Your task to perform on an android device: Open Reddit.com Image 0: 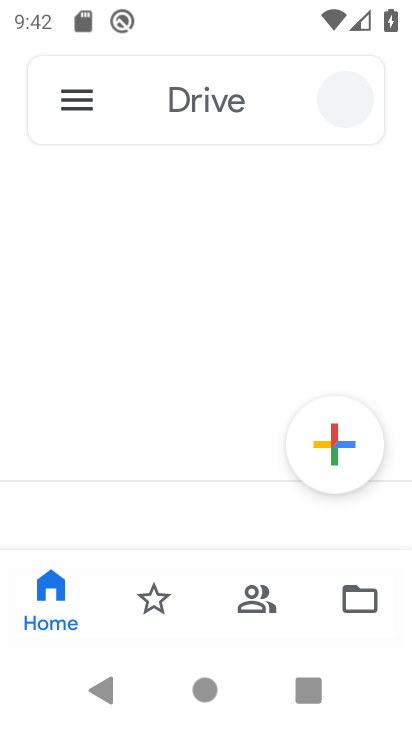
Step 0: drag from (364, 494) to (360, 188)
Your task to perform on an android device: Open Reddit.com Image 1: 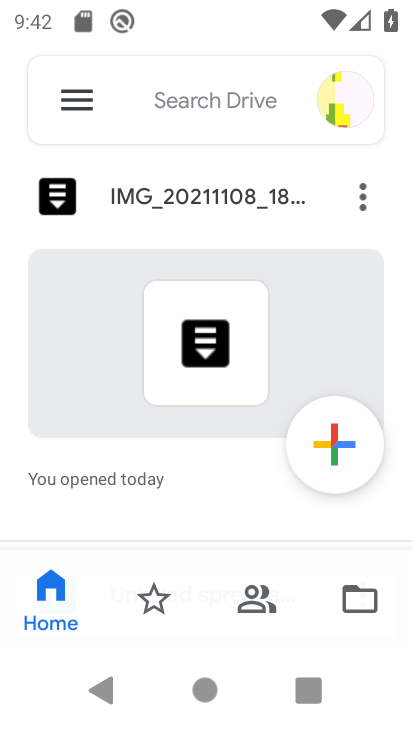
Step 1: press home button
Your task to perform on an android device: Open Reddit.com Image 2: 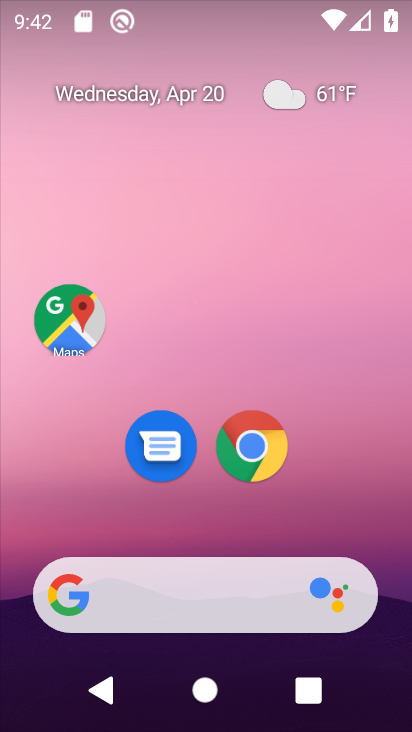
Step 2: click (277, 448)
Your task to perform on an android device: Open Reddit.com Image 3: 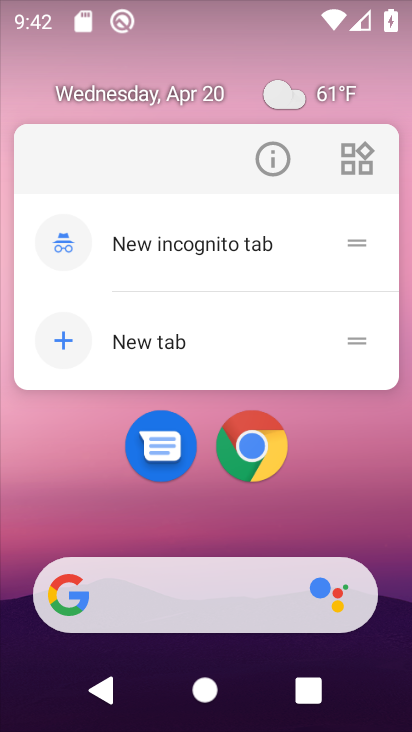
Step 3: click (354, 446)
Your task to perform on an android device: Open Reddit.com Image 4: 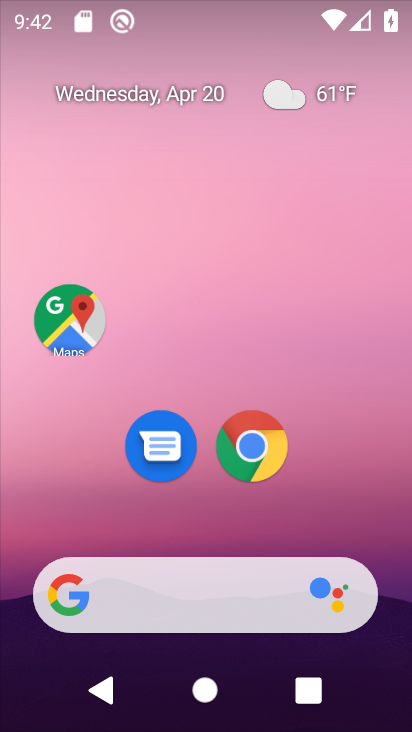
Step 4: click (278, 437)
Your task to perform on an android device: Open Reddit.com Image 5: 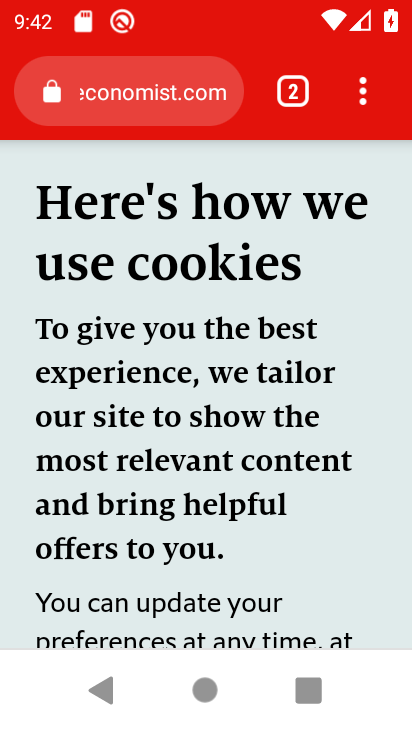
Step 5: click (290, 91)
Your task to perform on an android device: Open Reddit.com Image 6: 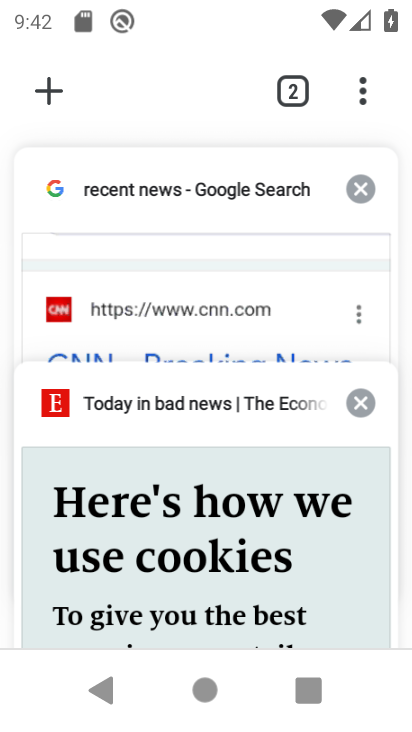
Step 6: click (50, 84)
Your task to perform on an android device: Open Reddit.com Image 7: 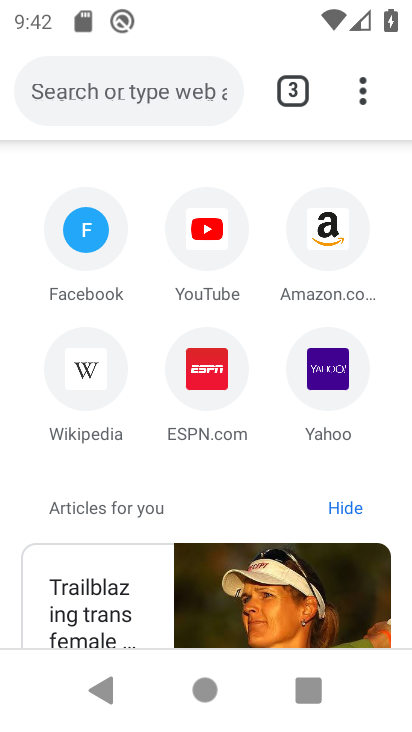
Step 7: click (101, 93)
Your task to perform on an android device: Open Reddit.com Image 8: 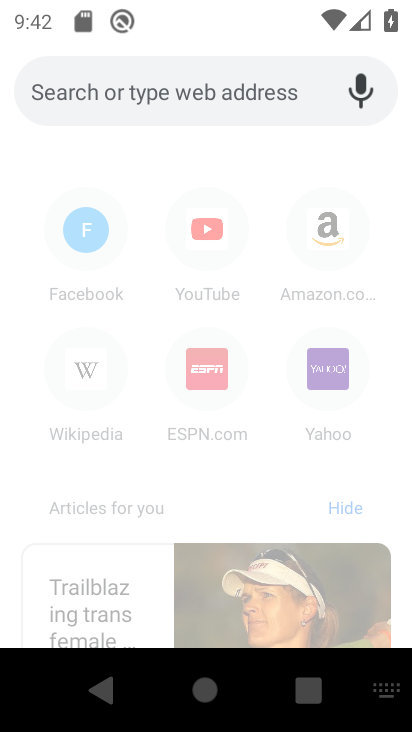
Step 8: type "reddit.com"
Your task to perform on an android device: Open Reddit.com Image 9: 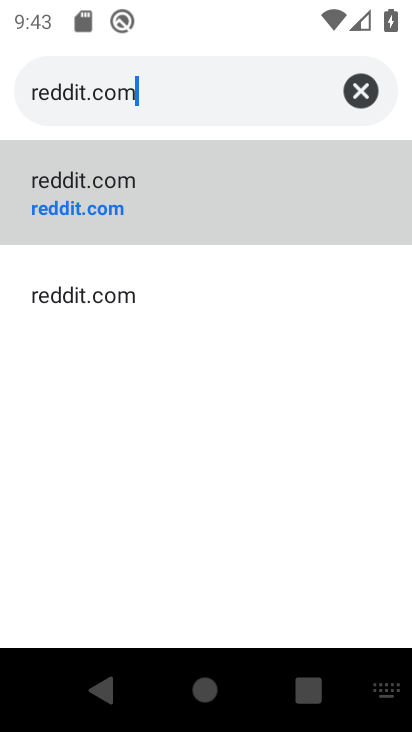
Step 9: click (117, 206)
Your task to perform on an android device: Open Reddit.com Image 10: 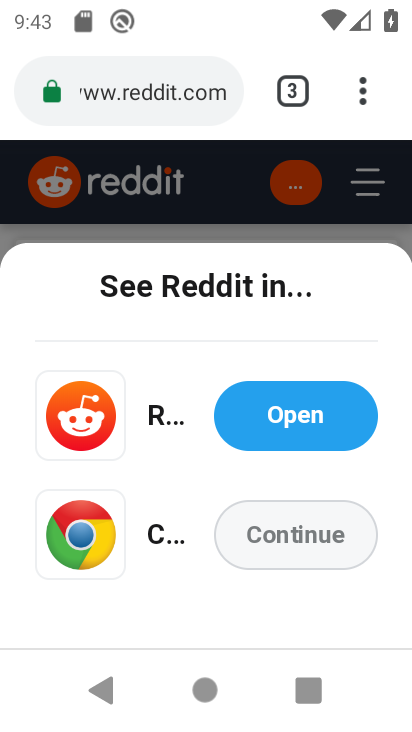
Step 10: task complete